Your task to perform on an android device: Open battery settings Image 0: 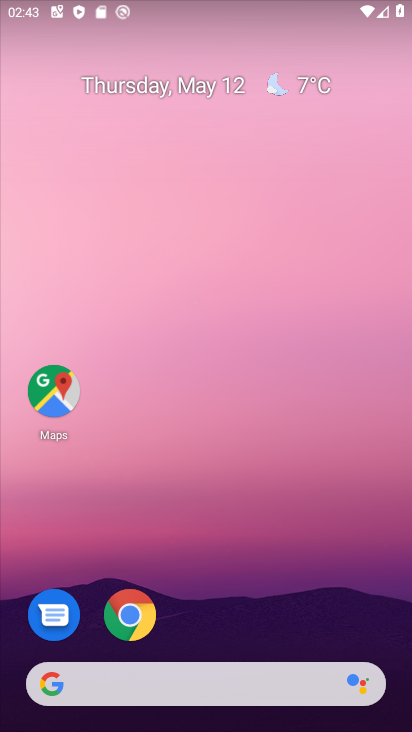
Step 0: drag from (200, 327) to (202, 159)
Your task to perform on an android device: Open battery settings Image 1: 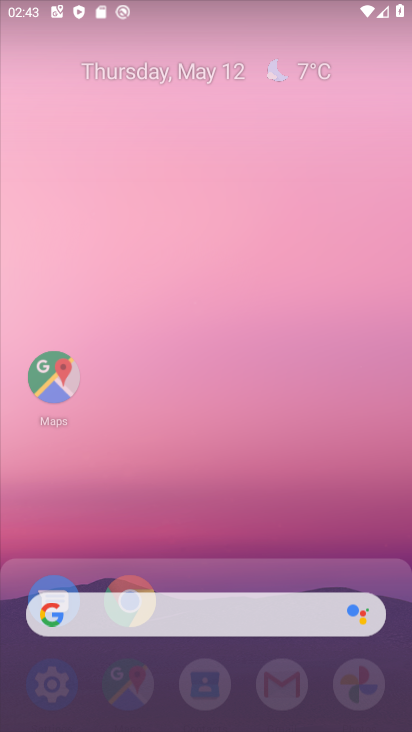
Step 1: drag from (178, 527) to (133, 68)
Your task to perform on an android device: Open battery settings Image 2: 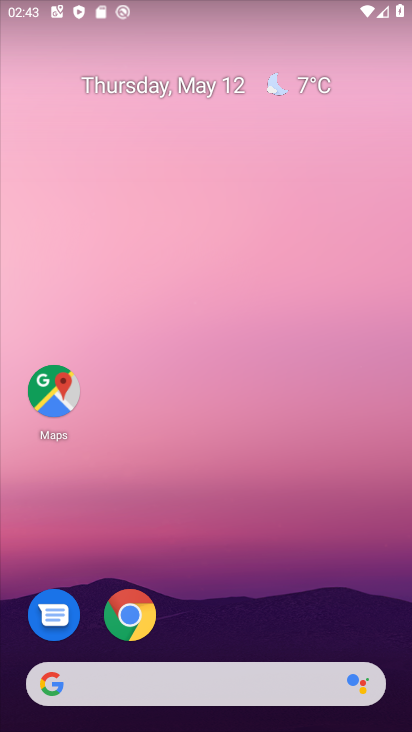
Step 2: drag from (204, 681) to (196, 148)
Your task to perform on an android device: Open battery settings Image 3: 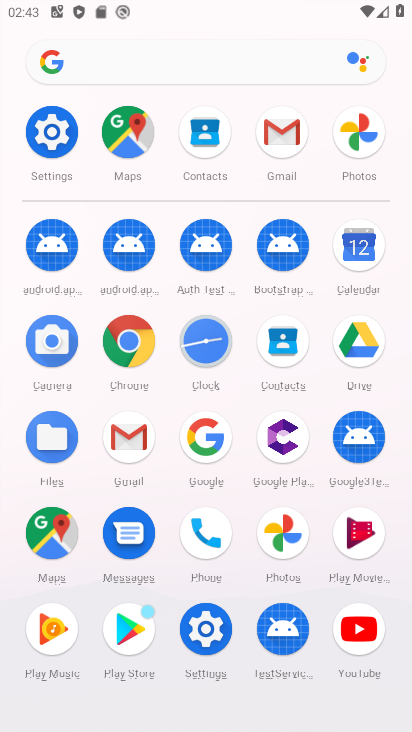
Step 3: click (71, 126)
Your task to perform on an android device: Open battery settings Image 4: 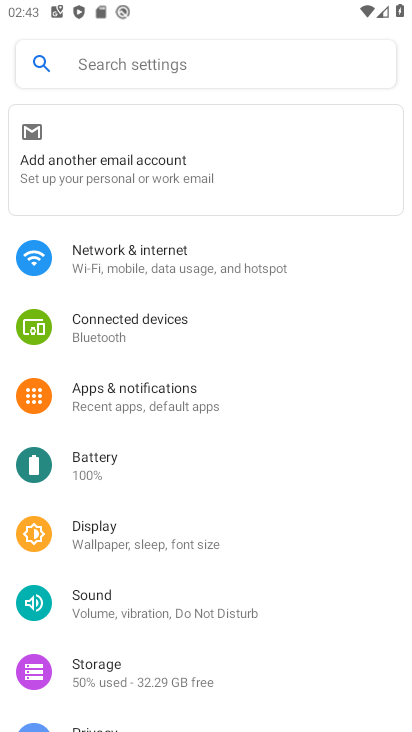
Step 4: click (113, 482)
Your task to perform on an android device: Open battery settings Image 5: 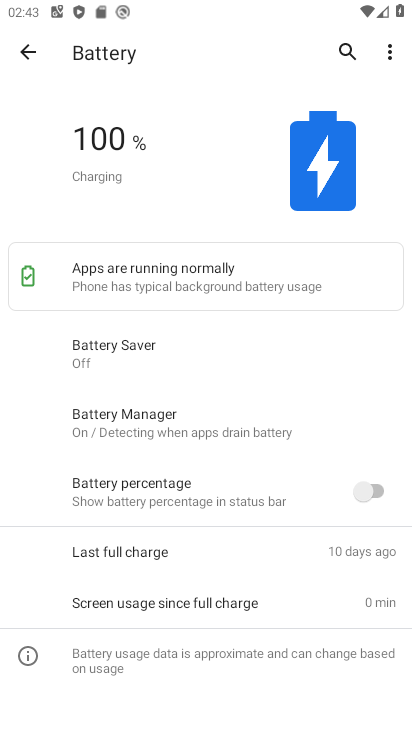
Step 5: task complete